Your task to perform on an android device: clear history in the chrome app Image 0: 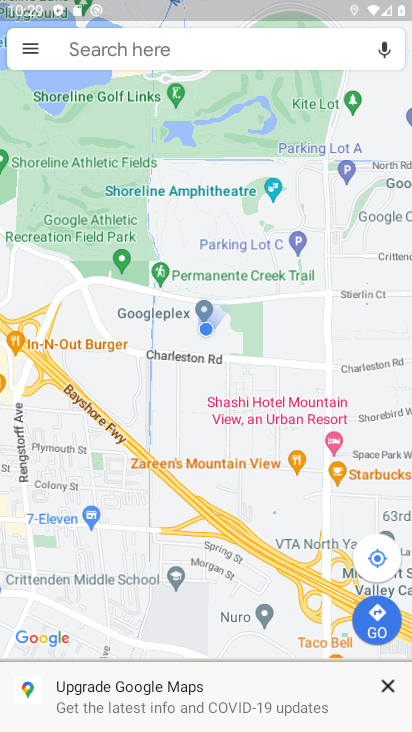
Step 0: press home button
Your task to perform on an android device: clear history in the chrome app Image 1: 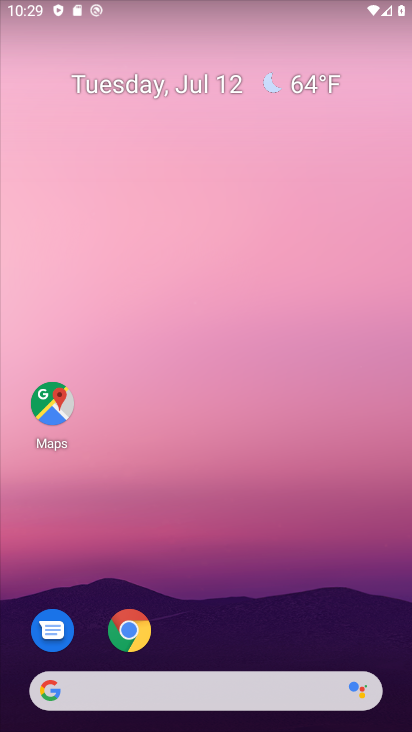
Step 1: drag from (326, 623) to (352, 132)
Your task to perform on an android device: clear history in the chrome app Image 2: 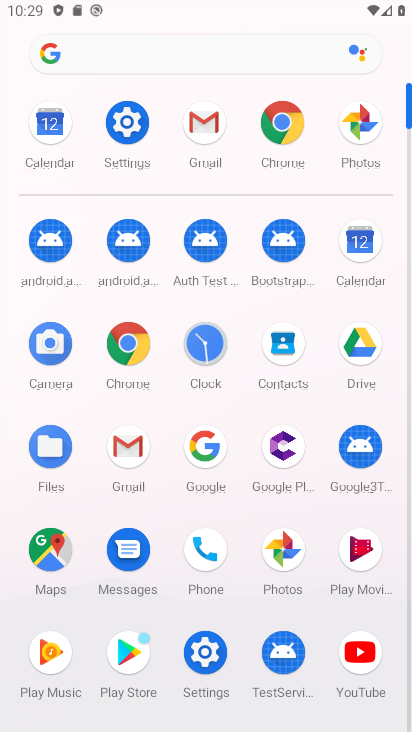
Step 2: click (126, 355)
Your task to perform on an android device: clear history in the chrome app Image 3: 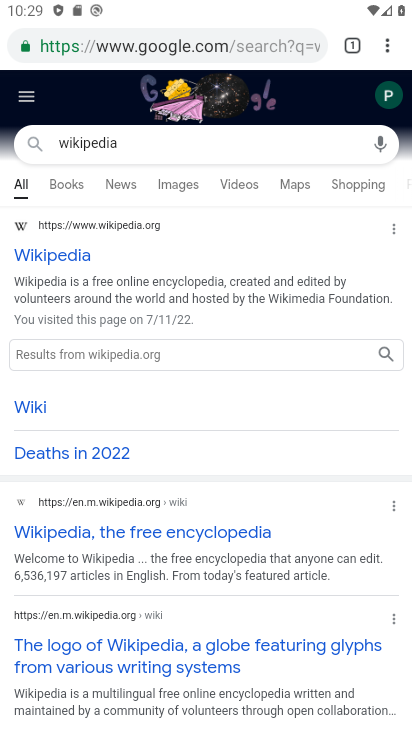
Step 3: click (388, 47)
Your task to perform on an android device: clear history in the chrome app Image 4: 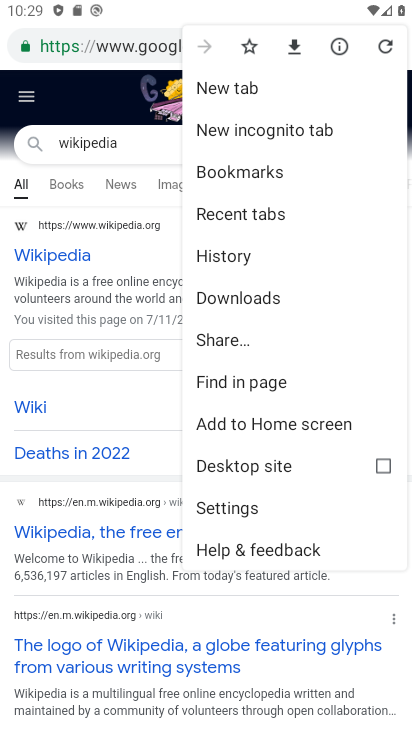
Step 4: click (254, 266)
Your task to perform on an android device: clear history in the chrome app Image 5: 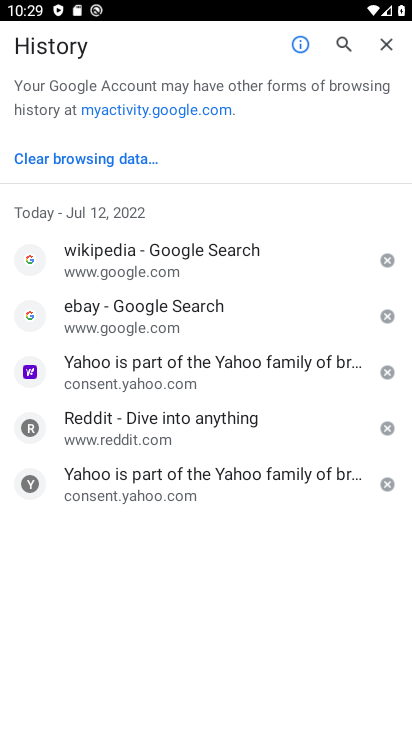
Step 5: click (129, 162)
Your task to perform on an android device: clear history in the chrome app Image 6: 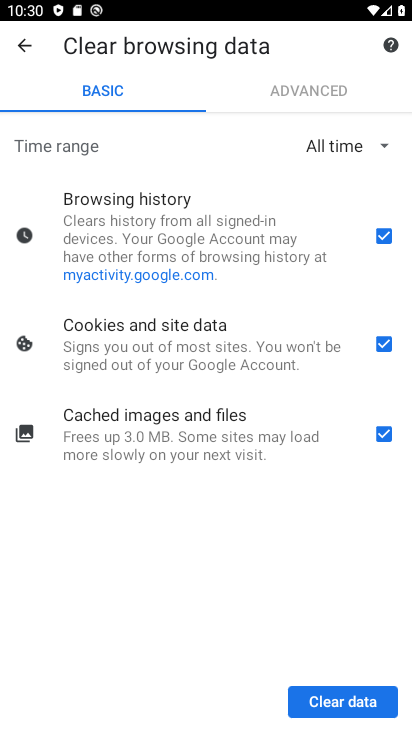
Step 6: click (346, 705)
Your task to perform on an android device: clear history in the chrome app Image 7: 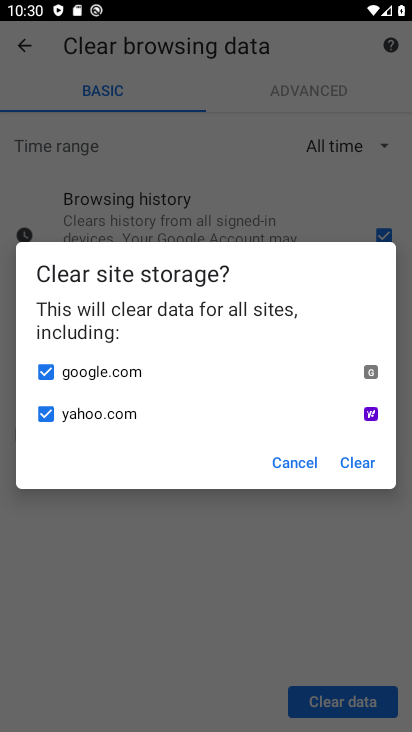
Step 7: click (358, 462)
Your task to perform on an android device: clear history in the chrome app Image 8: 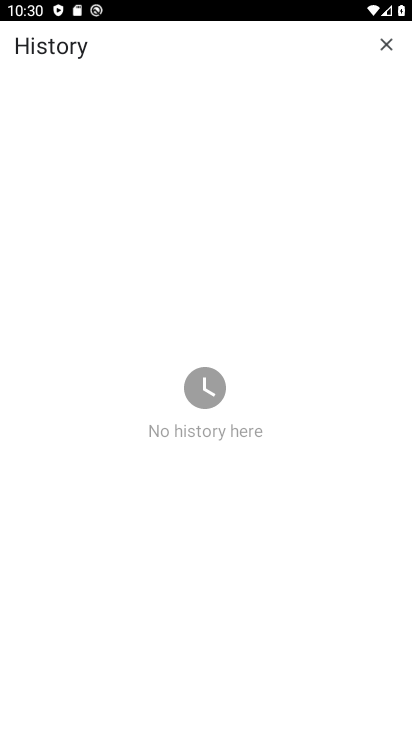
Step 8: task complete